Your task to perform on an android device: install app "Google Play Games" Image 0: 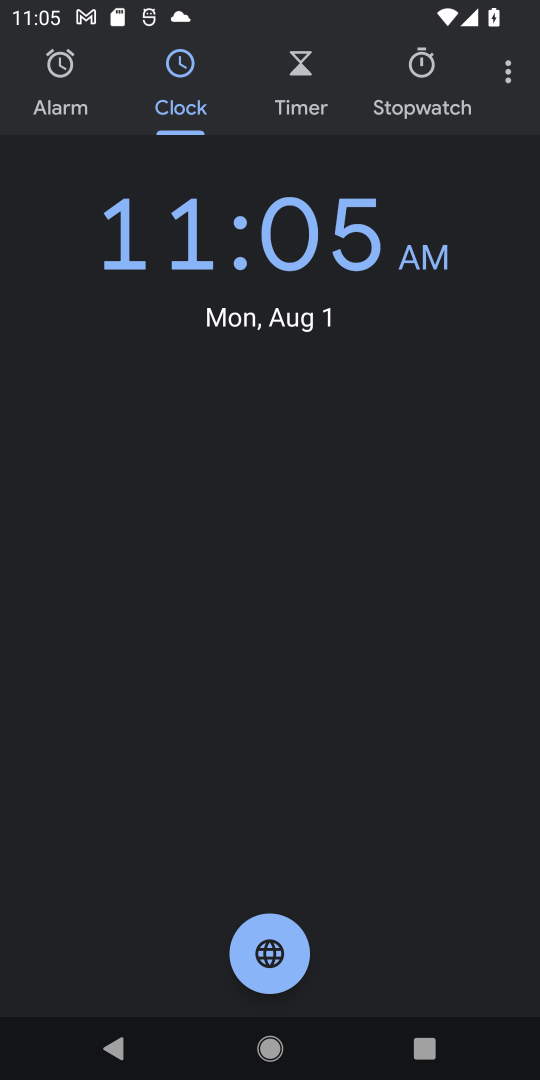
Step 0: press home button
Your task to perform on an android device: install app "Google Play Games" Image 1: 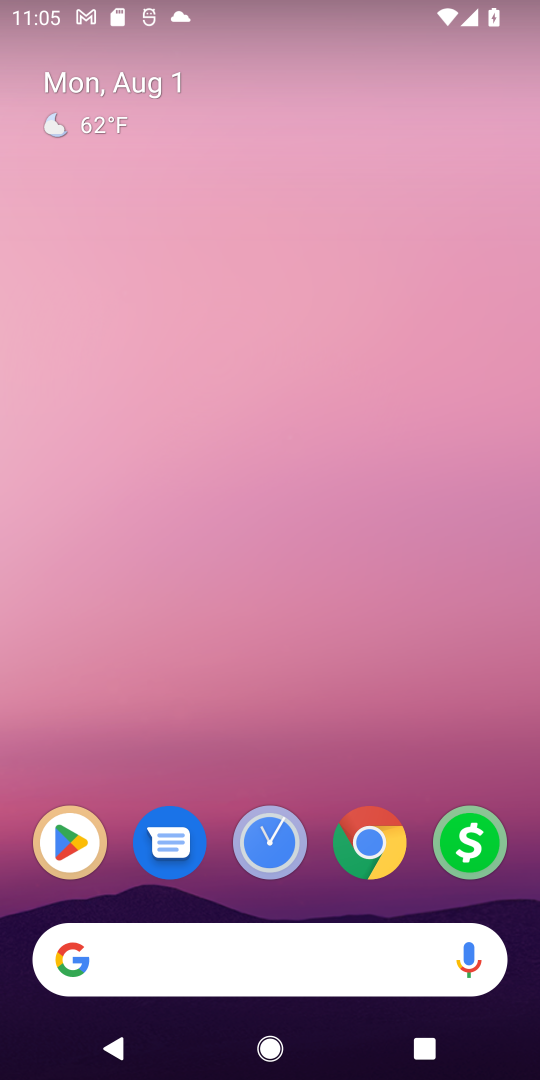
Step 1: click (53, 844)
Your task to perform on an android device: install app "Google Play Games" Image 2: 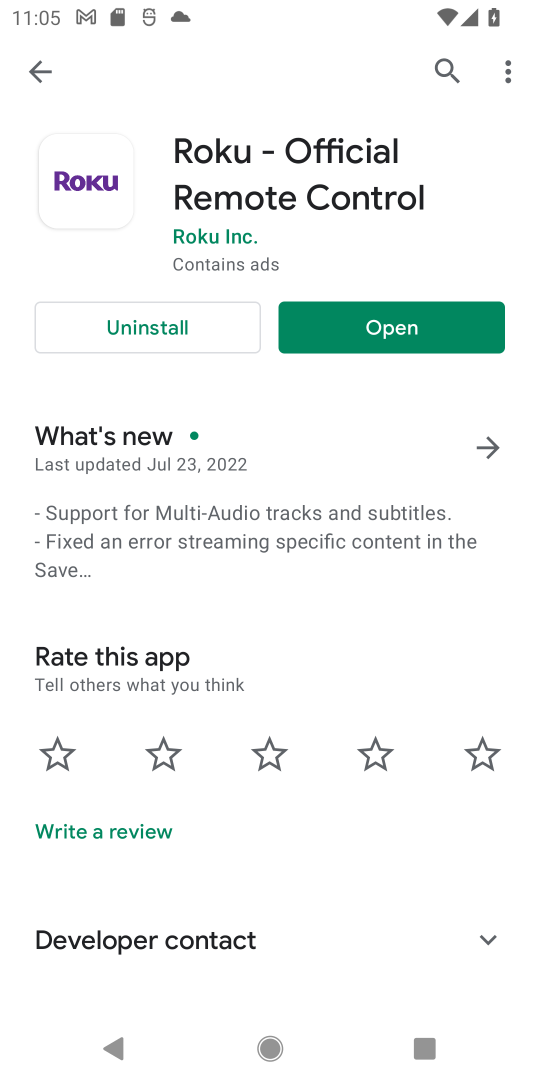
Step 2: click (438, 60)
Your task to perform on an android device: install app "Google Play Games" Image 3: 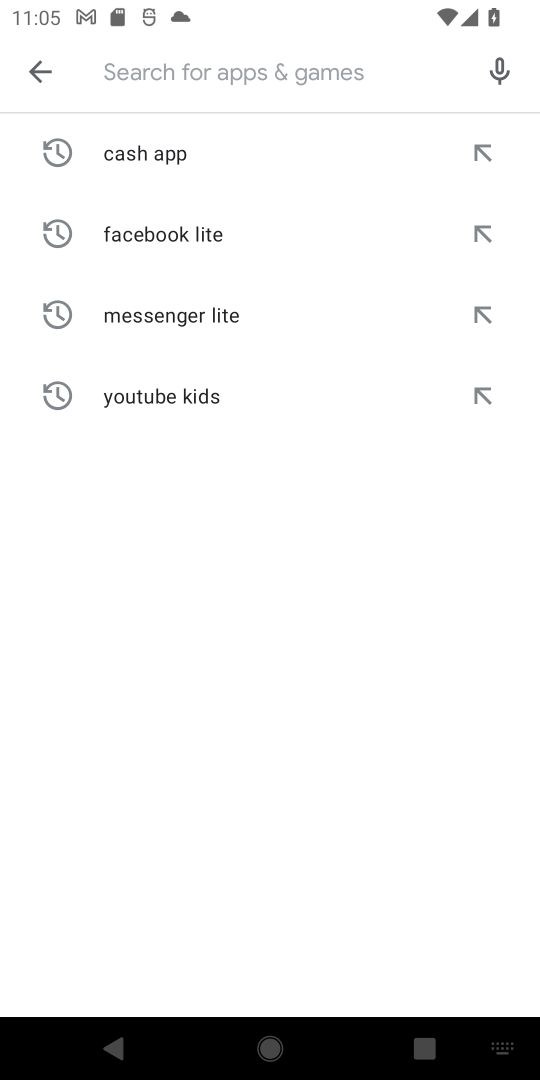
Step 3: click (214, 82)
Your task to perform on an android device: install app "Google Play Games" Image 4: 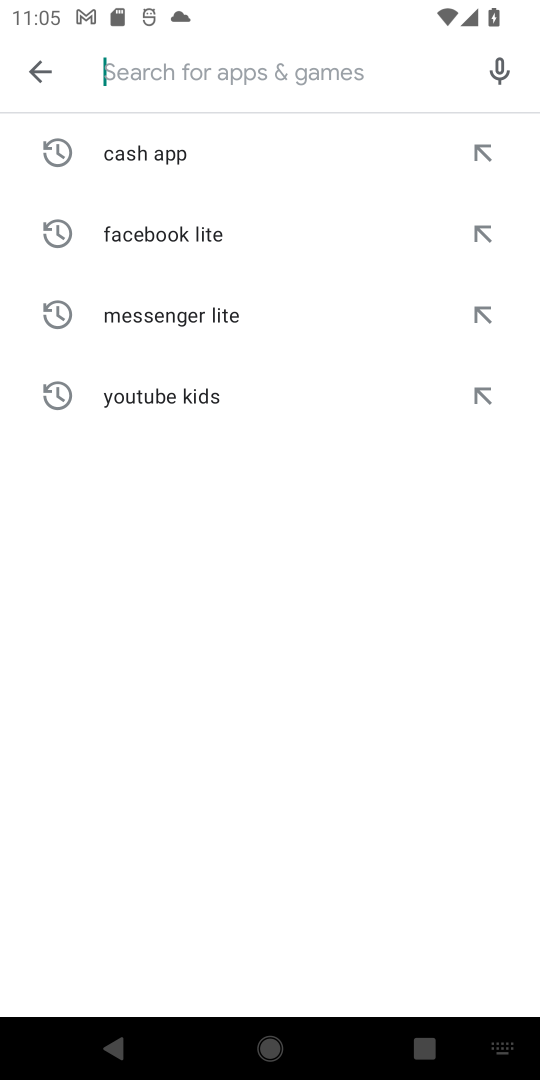
Step 4: type "Google Play Games"
Your task to perform on an android device: install app "Google Play Games" Image 5: 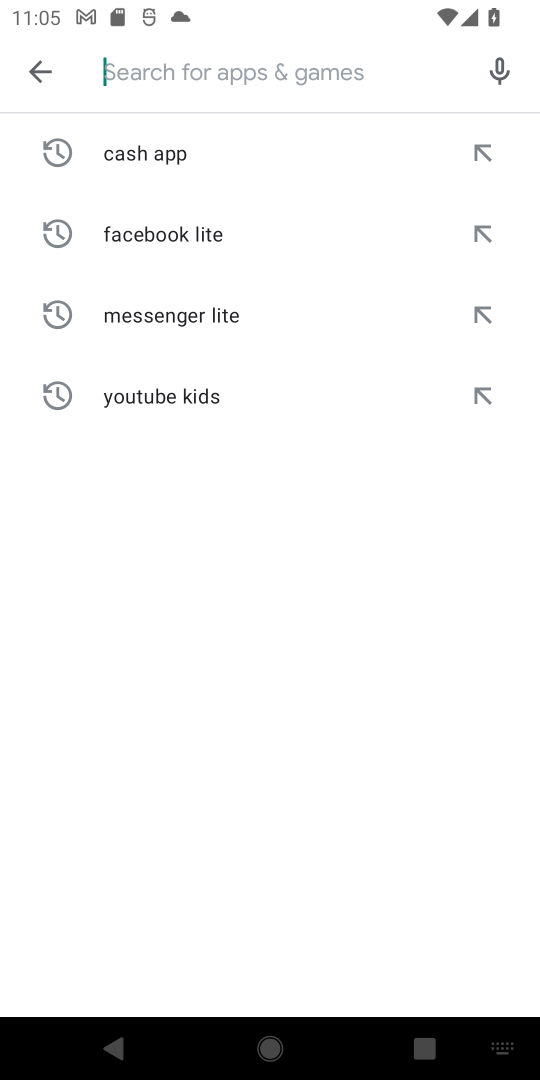
Step 5: click (280, 670)
Your task to perform on an android device: install app "Google Play Games" Image 6: 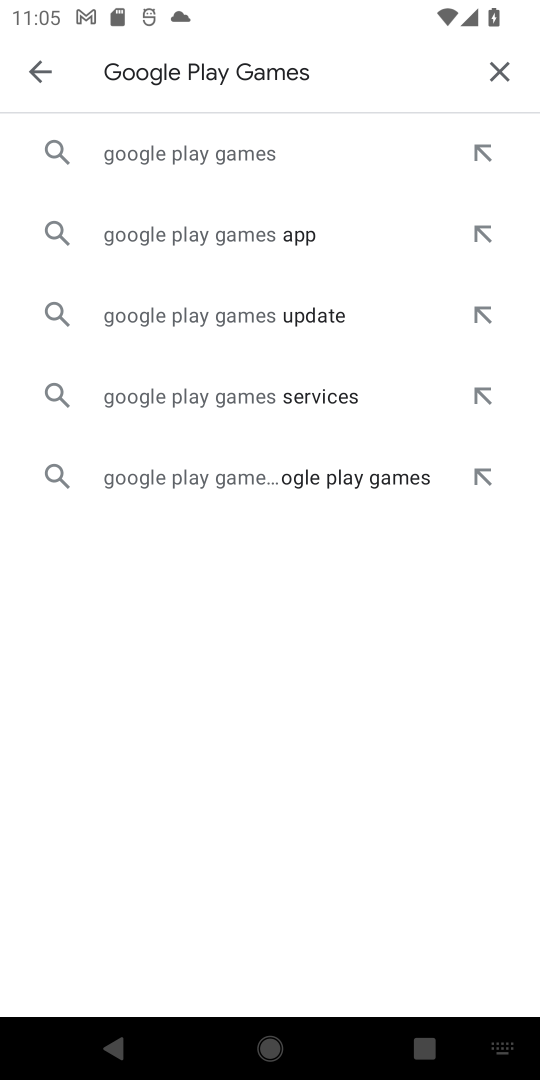
Step 6: click (179, 161)
Your task to perform on an android device: install app "Google Play Games" Image 7: 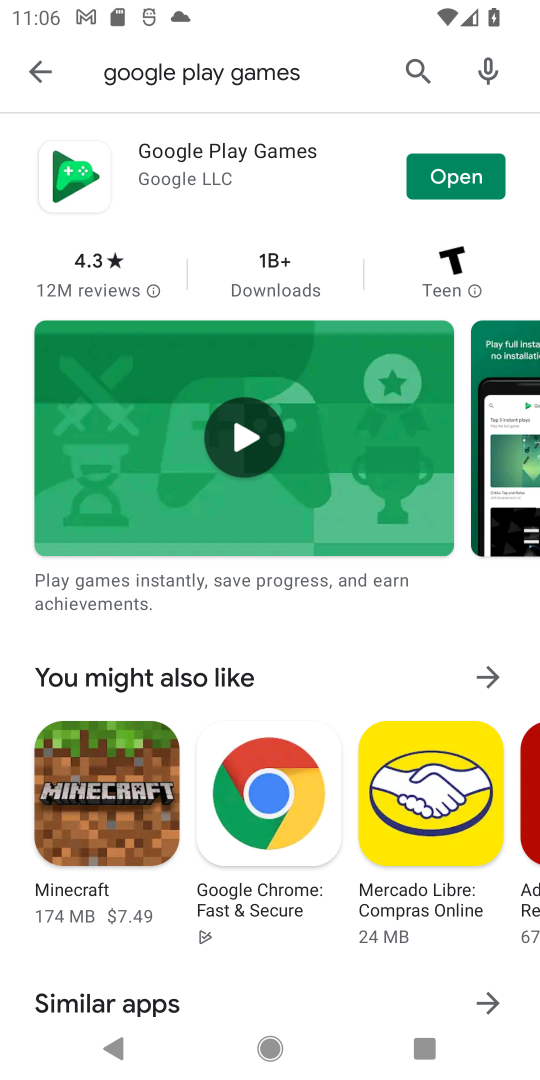
Step 7: task complete